Your task to perform on an android device: toggle improve location accuracy Image 0: 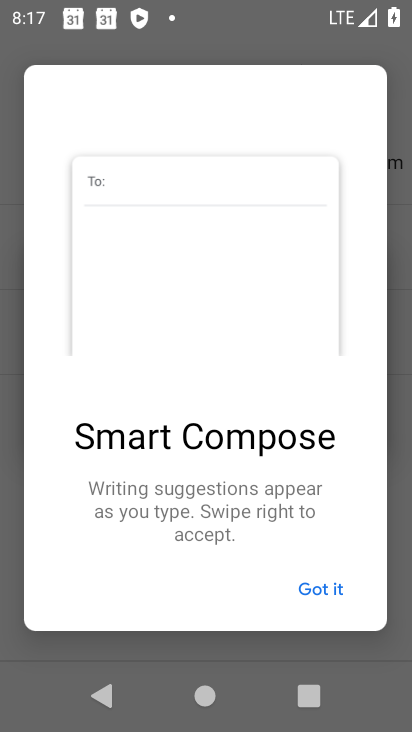
Step 0: press home button
Your task to perform on an android device: toggle improve location accuracy Image 1: 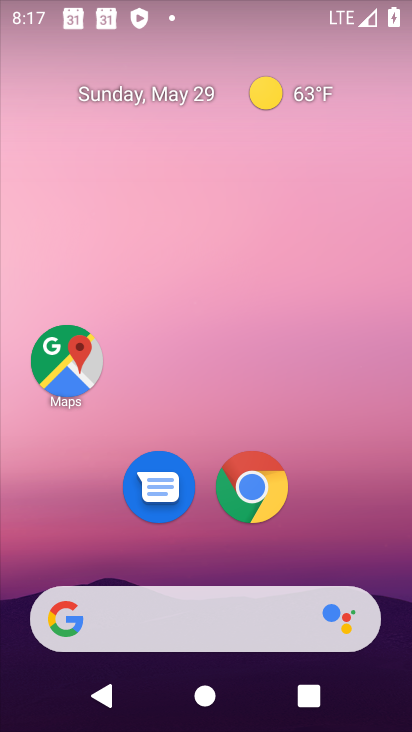
Step 1: drag from (213, 619) to (262, 116)
Your task to perform on an android device: toggle improve location accuracy Image 2: 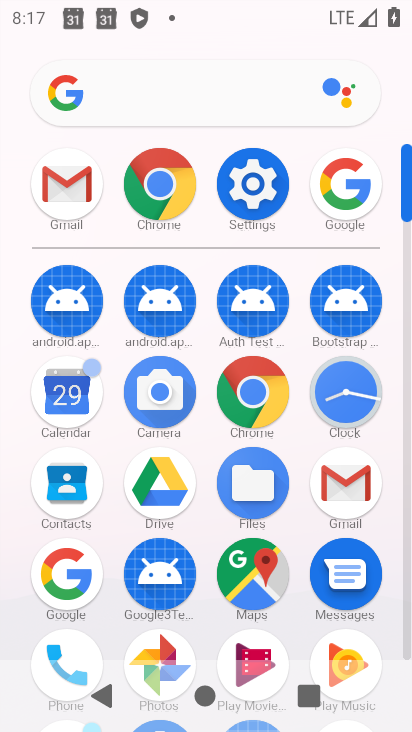
Step 2: click (255, 192)
Your task to perform on an android device: toggle improve location accuracy Image 3: 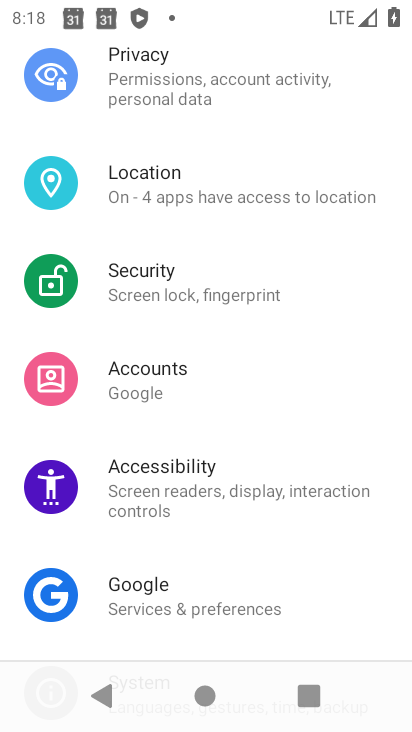
Step 3: drag from (183, 497) to (210, 615)
Your task to perform on an android device: toggle improve location accuracy Image 4: 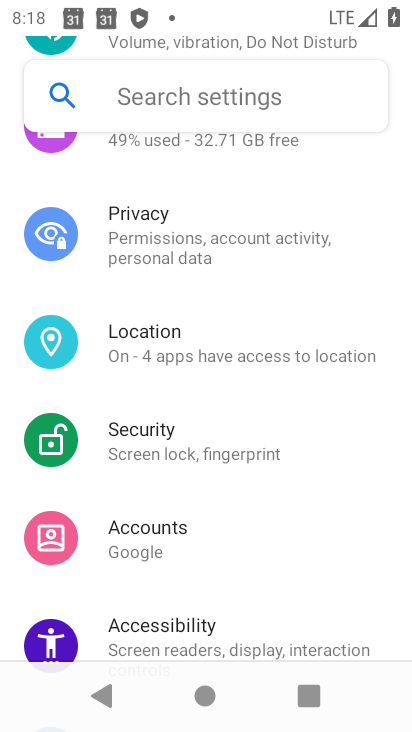
Step 4: click (271, 342)
Your task to perform on an android device: toggle improve location accuracy Image 5: 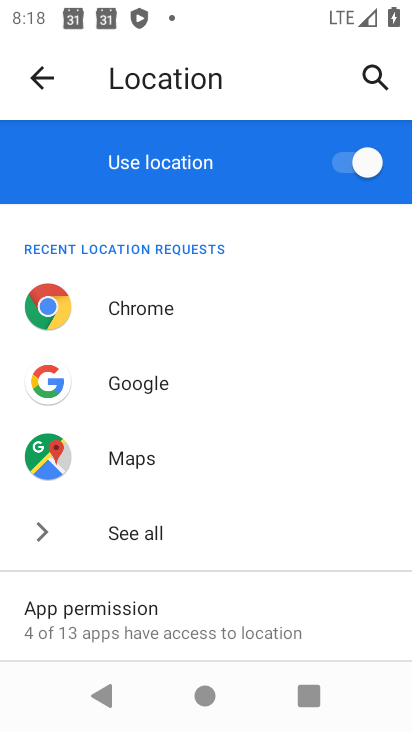
Step 5: drag from (198, 573) to (279, 190)
Your task to perform on an android device: toggle improve location accuracy Image 6: 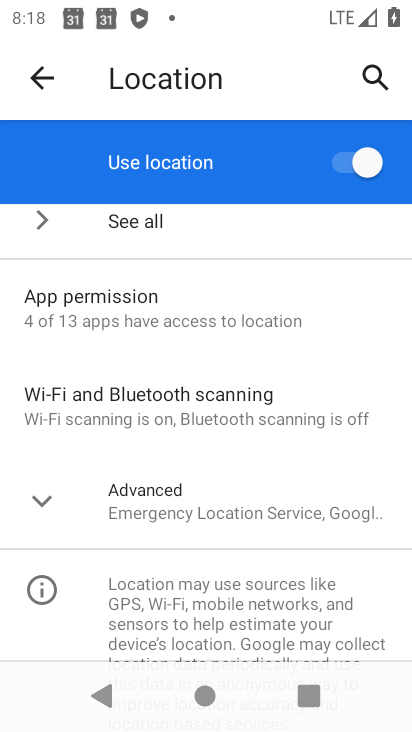
Step 6: click (258, 499)
Your task to perform on an android device: toggle improve location accuracy Image 7: 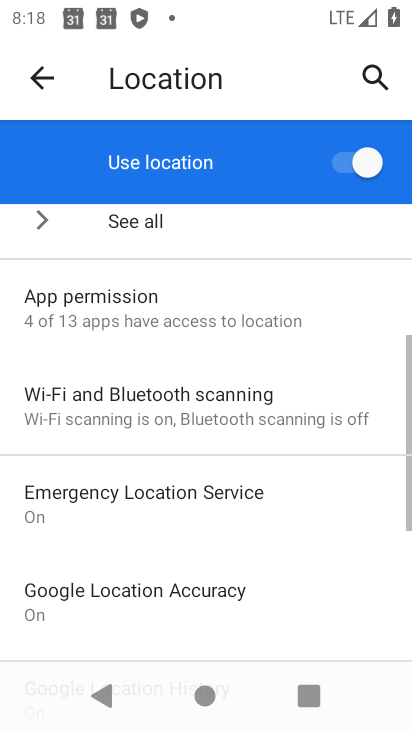
Step 7: drag from (245, 575) to (258, 452)
Your task to perform on an android device: toggle improve location accuracy Image 8: 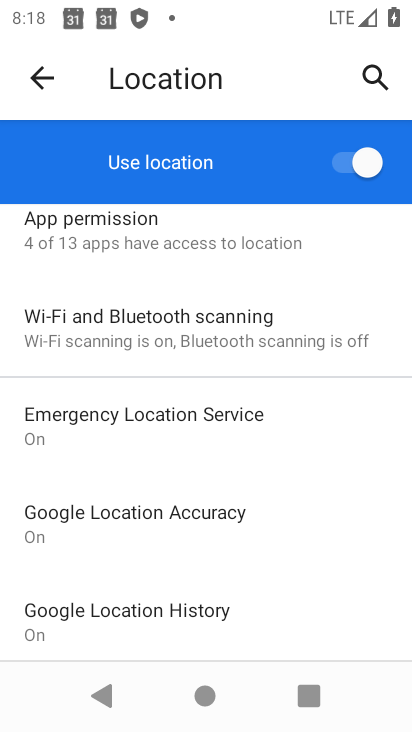
Step 8: click (226, 523)
Your task to perform on an android device: toggle improve location accuracy Image 9: 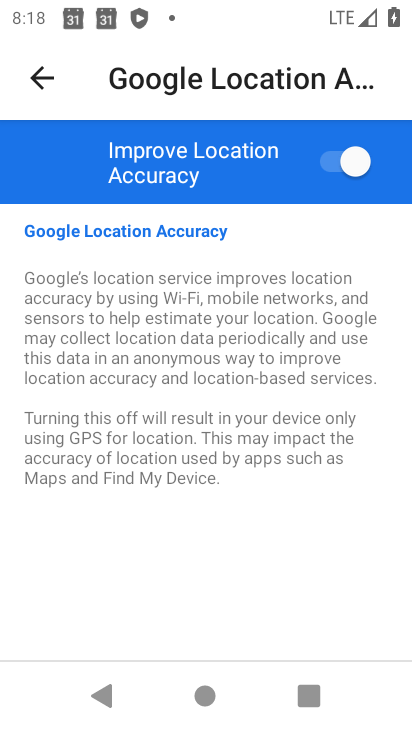
Step 9: click (329, 175)
Your task to perform on an android device: toggle improve location accuracy Image 10: 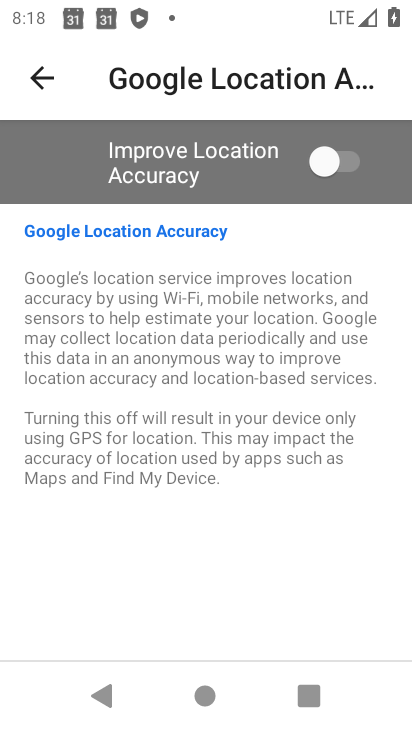
Step 10: task complete